Your task to perform on an android device: open app "Life360: Find Family & Friends" Image 0: 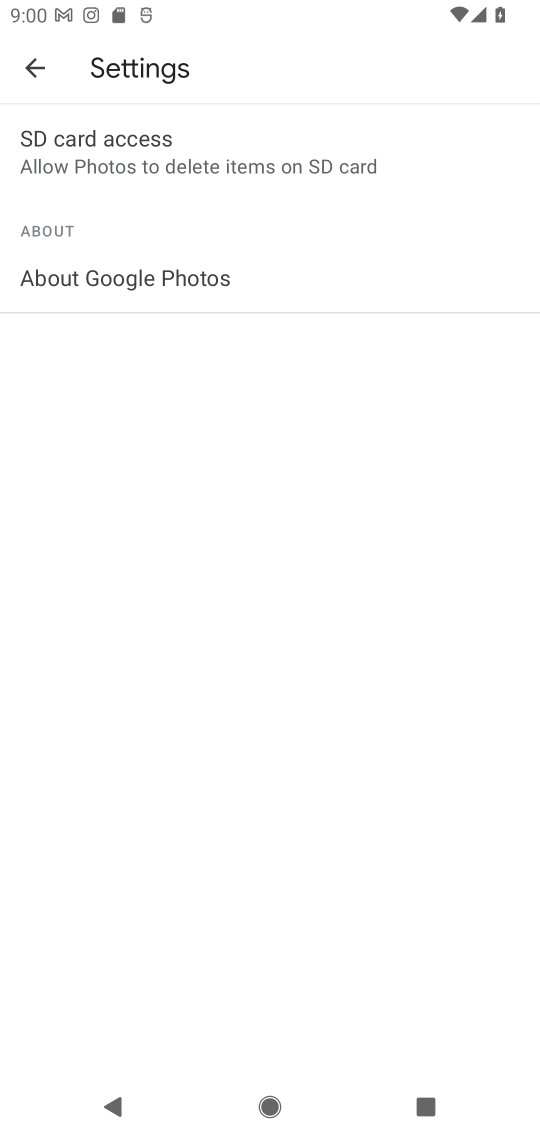
Step 0: press home button
Your task to perform on an android device: open app "Life360: Find Family & Friends" Image 1: 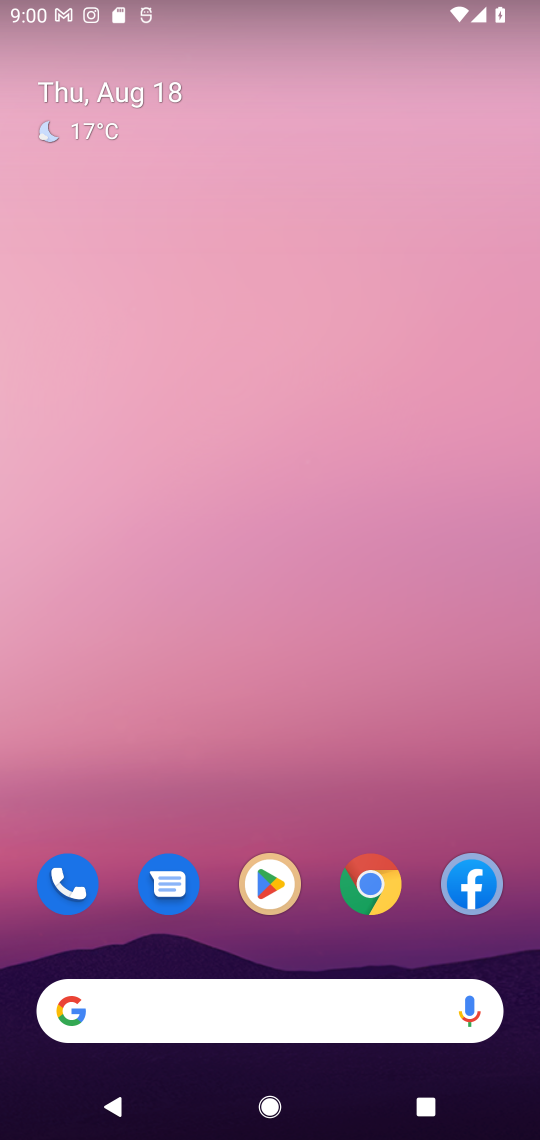
Step 1: drag from (225, 1023) to (262, 117)
Your task to perform on an android device: open app "Life360: Find Family & Friends" Image 2: 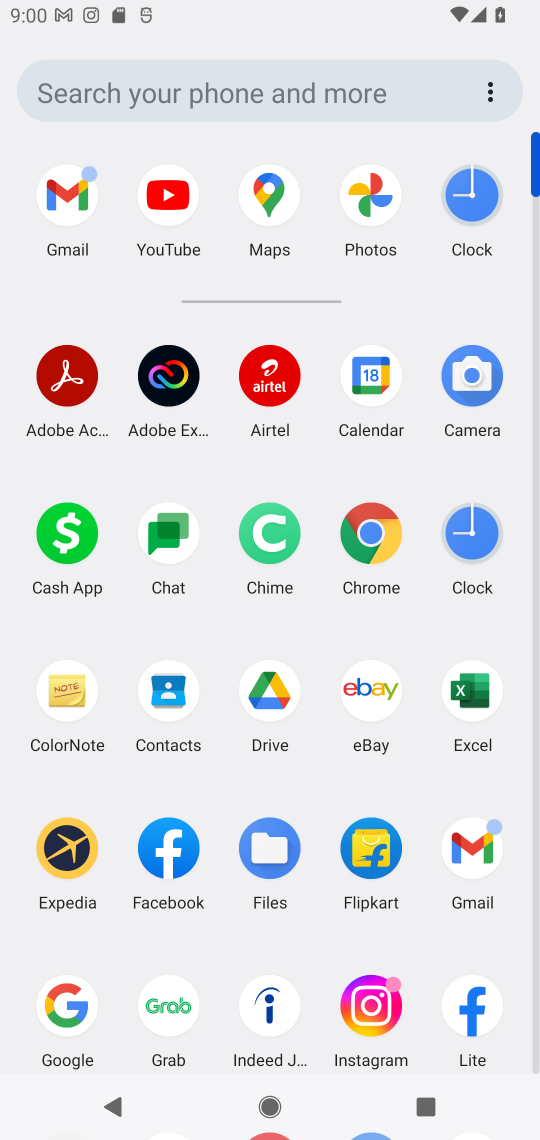
Step 2: drag from (239, 985) to (249, 415)
Your task to perform on an android device: open app "Life360: Find Family & Friends" Image 3: 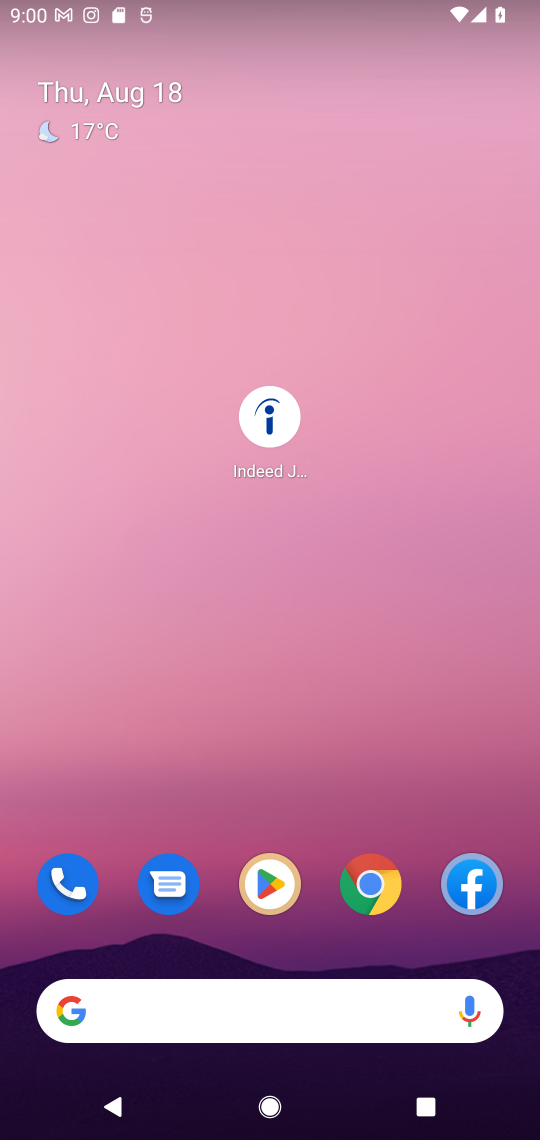
Step 3: drag from (267, 439) to (207, 65)
Your task to perform on an android device: open app "Life360: Find Family & Friends" Image 4: 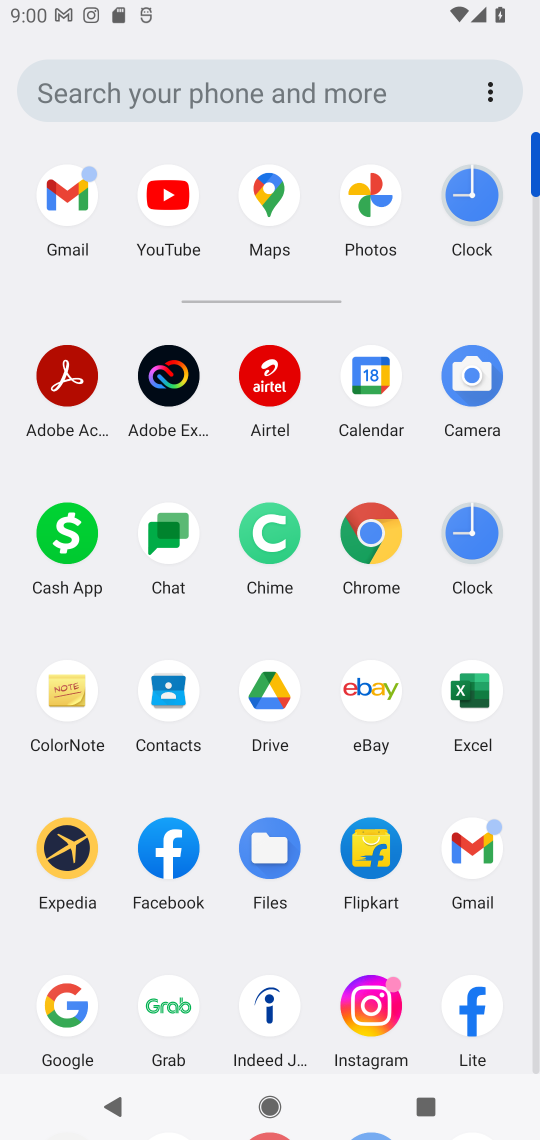
Step 4: drag from (227, 994) to (220, 196)
Your task to perform on an android device: open app "Life360: Find Family & Friends" Image 5: 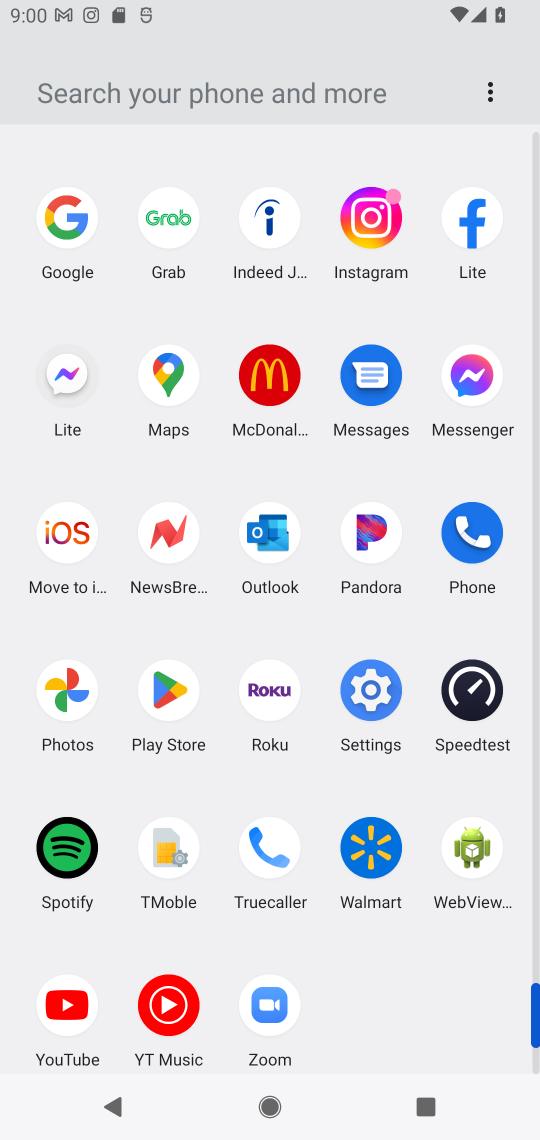
Step 5: click (176, 696)
Your task to perform on an android device: open app "Life360: Find Family & Friends" Image 6: 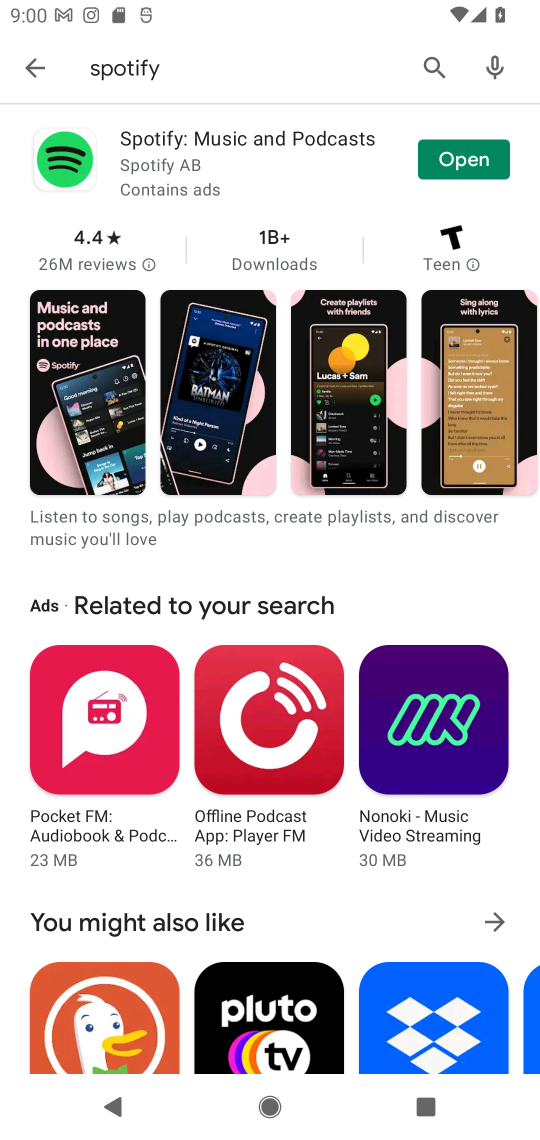
Step 6: press back button
Your task to perform on an android device: open app "Life360: Find Family & Friends" Image 7: 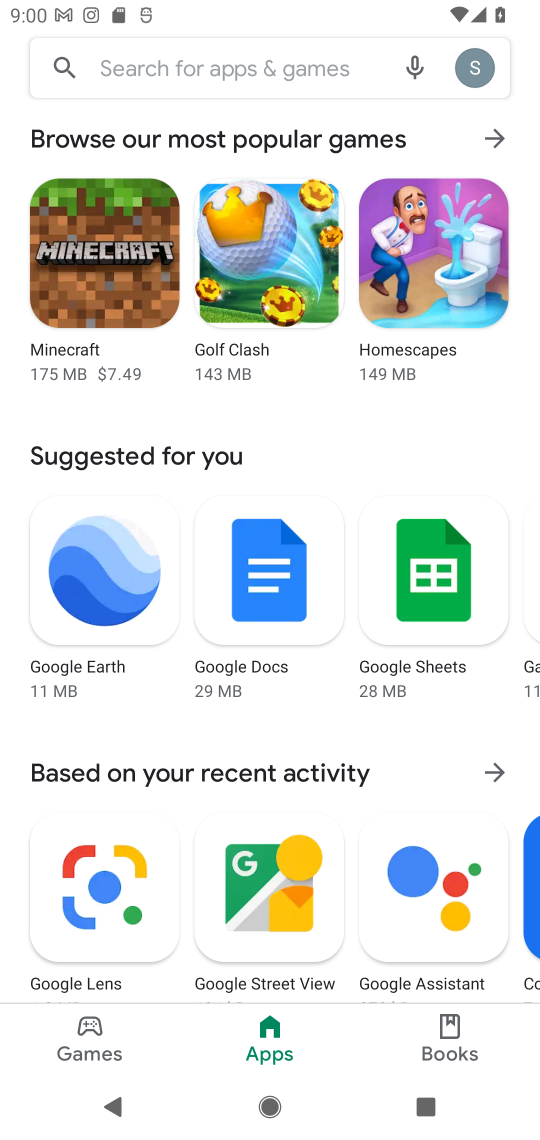
Step 7: click (215, 54)
Your task to perform on an android device: open app "Life360: Find Family & Friends" Image 8: 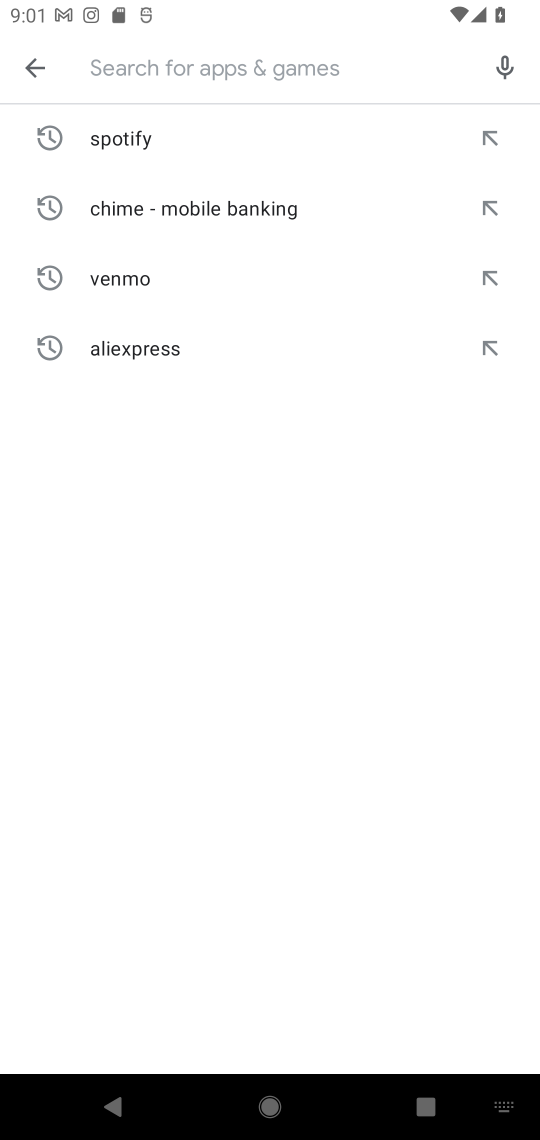
Step 8: type "Life360: Find Family & Friends"
Your task to perform on an android device: open app "Life360: Find Family & Friends" Image 9: 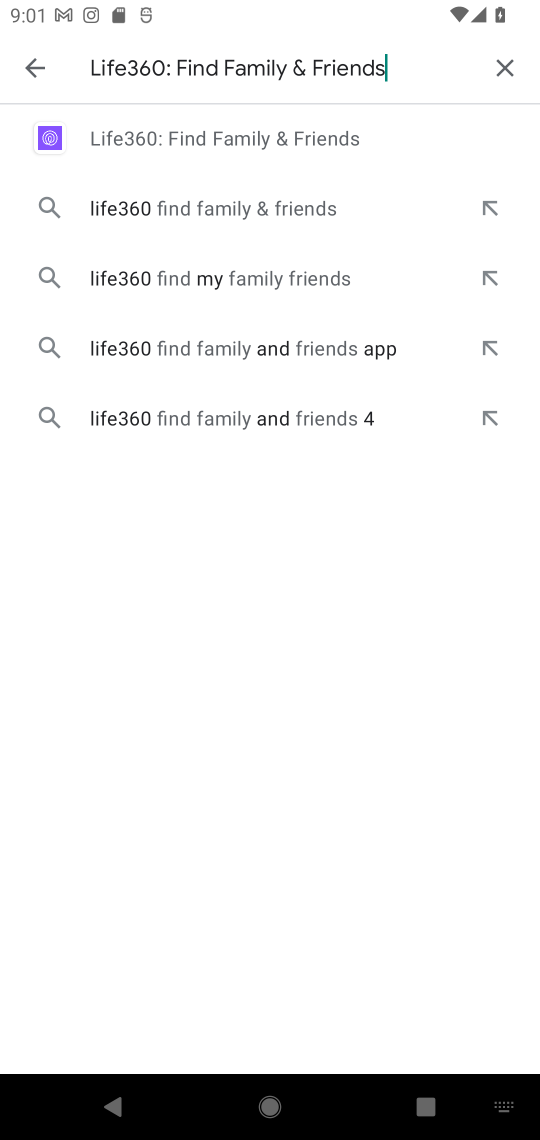
Step 9: click (156, 130)
Your task to perform on an android device: open app "Life360: Find Family & Friends" Image 10: 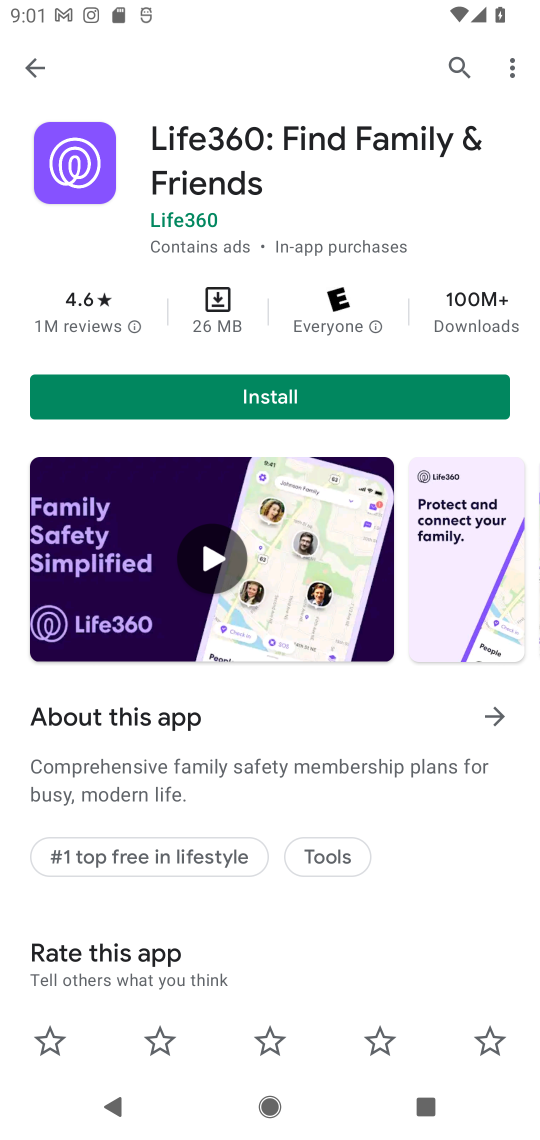
Step 10: task complete